Your task to perform on an android device: Open wifi settings Image 0: 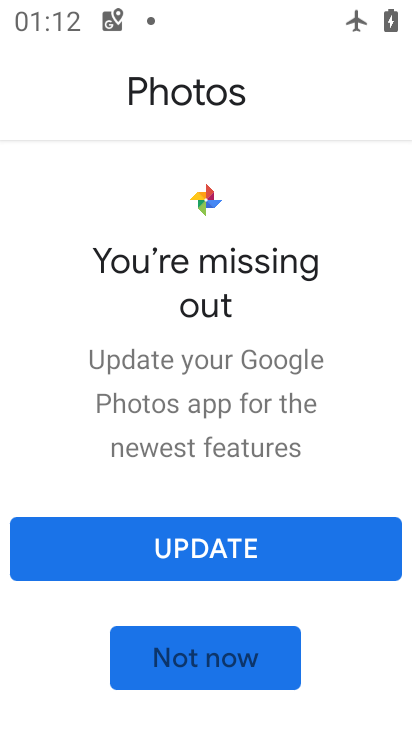
Step 0: press home button
Your task to perform on an android device: Open wifi settings Image 1: 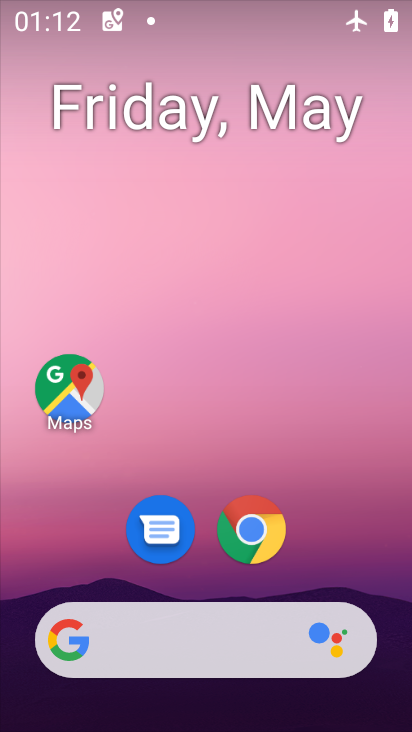
Step 1: drag from (361, 299) to (369, 185)
Your task to perform on an android device: Open wifi settings Image 2: 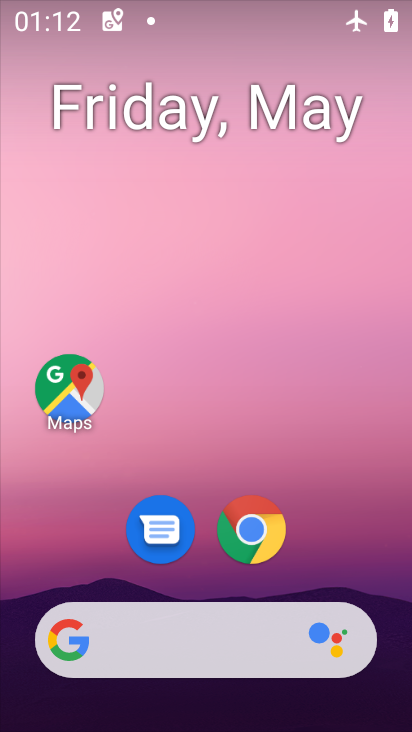
Step 2: drag from (279, 482) to (292, 190)
Your task to perform on an android device: Open wifi settings Image 3: 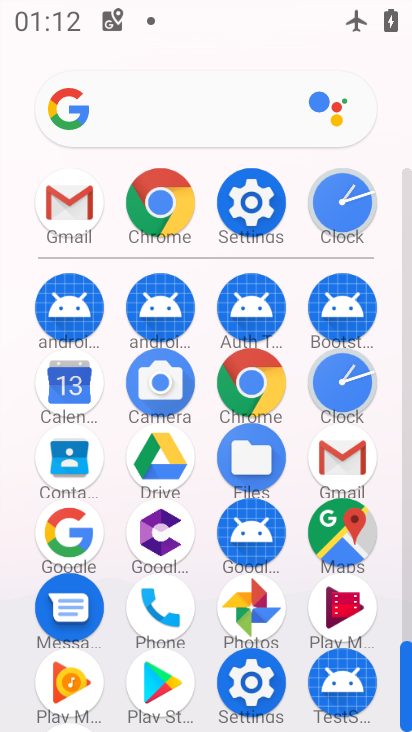
Step 3: click (251, 205)
Your task to perform on an android device: Open wifi settings Image 4: 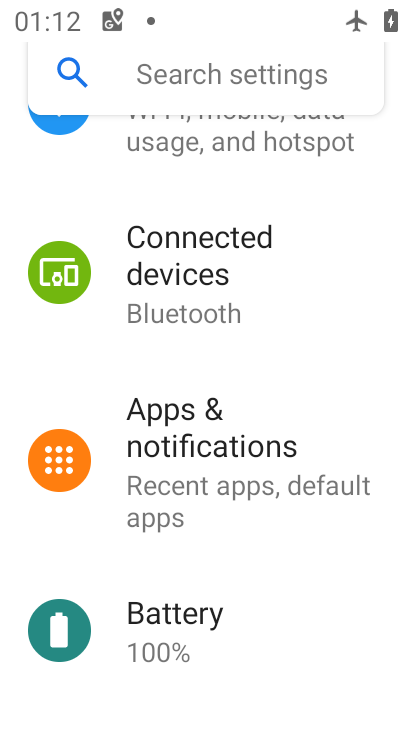
Step 4: drag from (180, 161) to (103, 663)
Your task to perform on an android device: Open wifi settings Image 5: 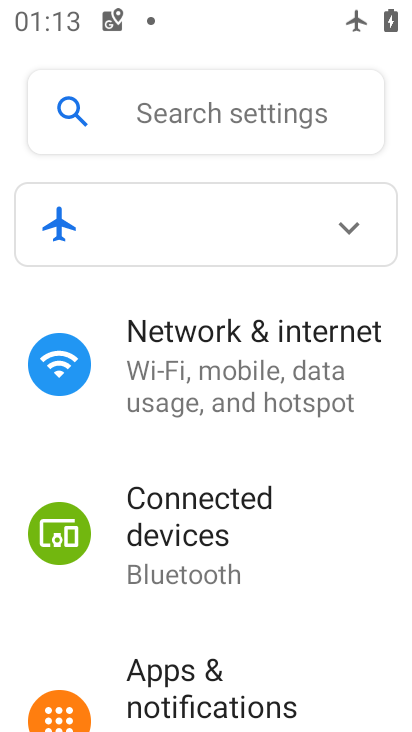
Step 5: click (202, 297)
Your task to perform on an android device: Open wifi settings Image 6: 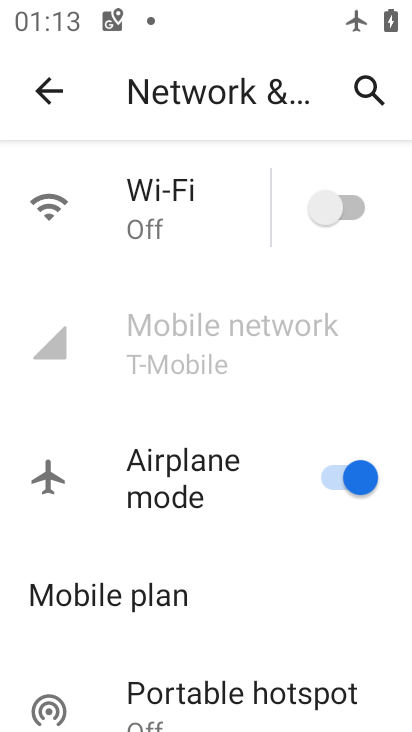
Step 6: task complete